Your task to perform on an android device: turn off wifi Image 0: 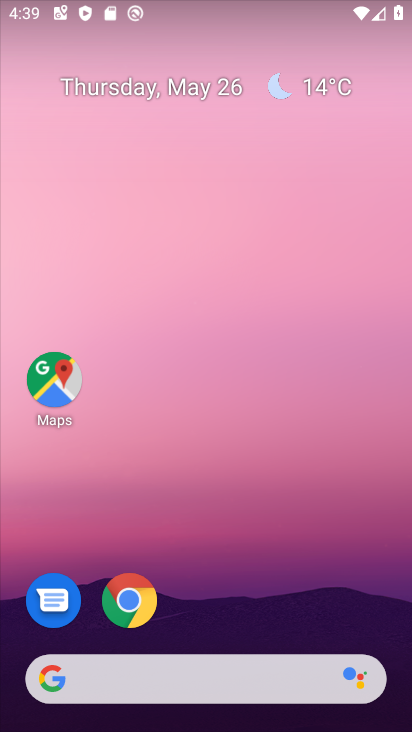
Step 0: drag from (239, 96) to (185, 512)
Your task to perform on an android device: turn off wifi Image 1: 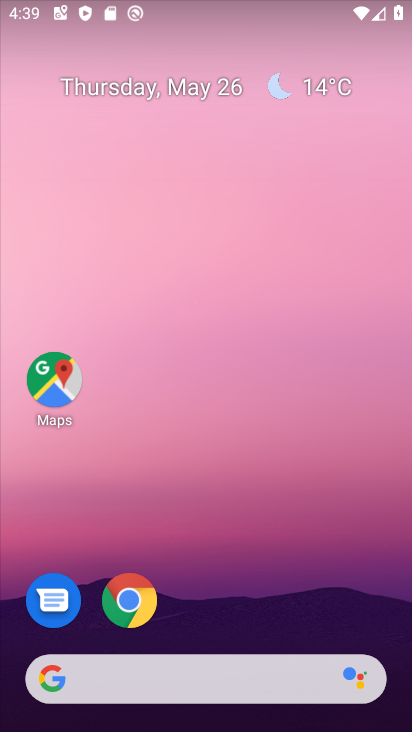
Step 1: drag from (282, 17) to (206, 577)
Your task to perform on an android device: turn off wifi Image 2: 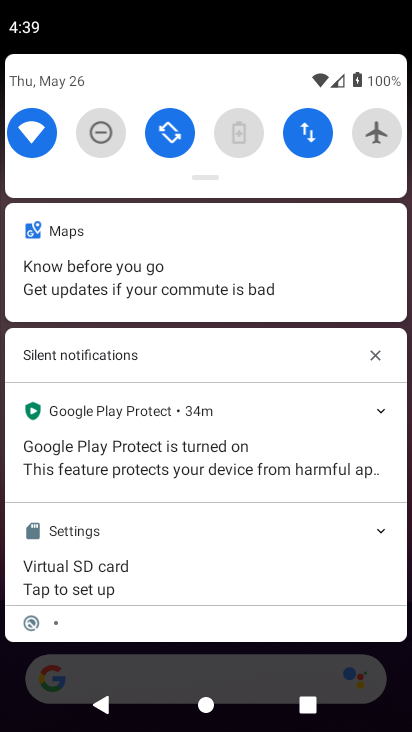
Step 2: click (26, 137)
Your task to perform on an android device: turn off wifi Image 3: 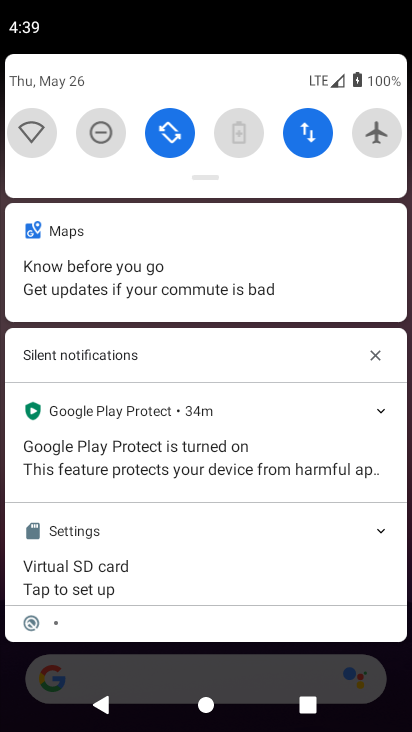
Step 3: task complete